Your task to perform on an android device: Open Amazon Image 0: 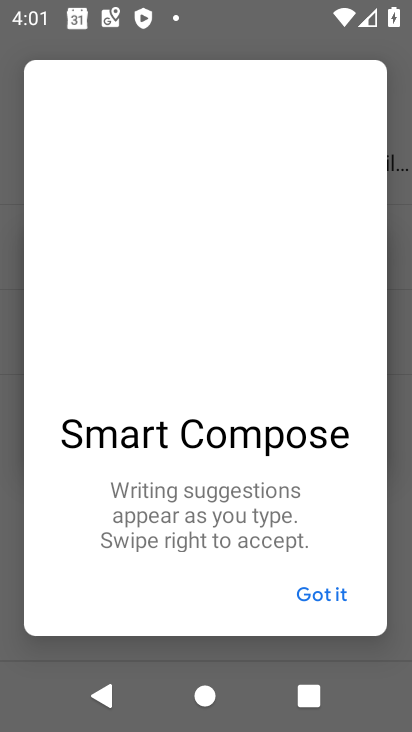
Step 0: press back button
Your task to perform on an android device: Open Amazon Image 1: 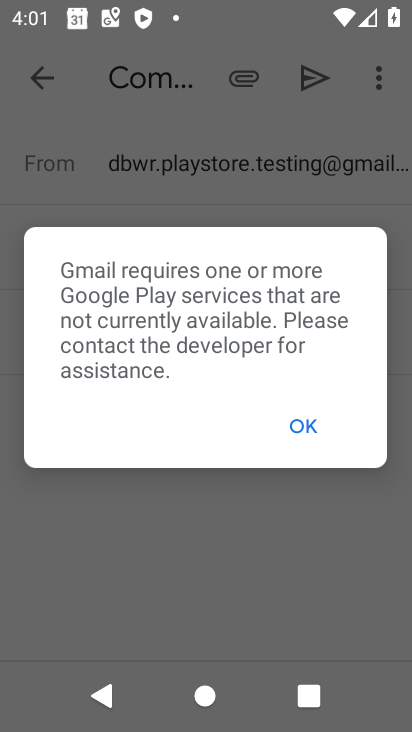
Step 1: press home button
Your task to perform on an android device: Open Amazon Image 2: 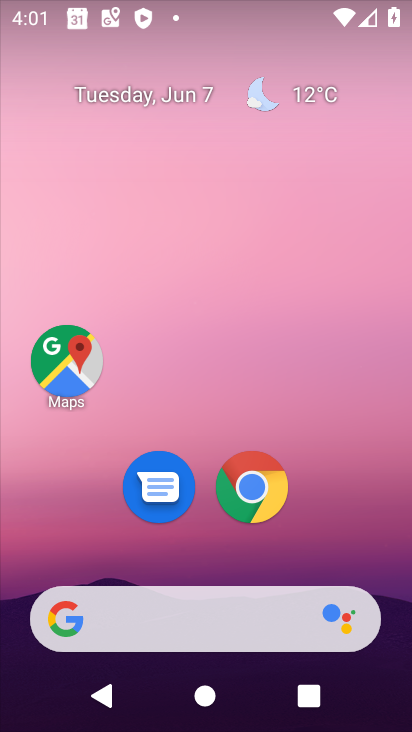
Step 2: click (245, 510)
Your task to perform on an android device: Open Amazon Image 3: 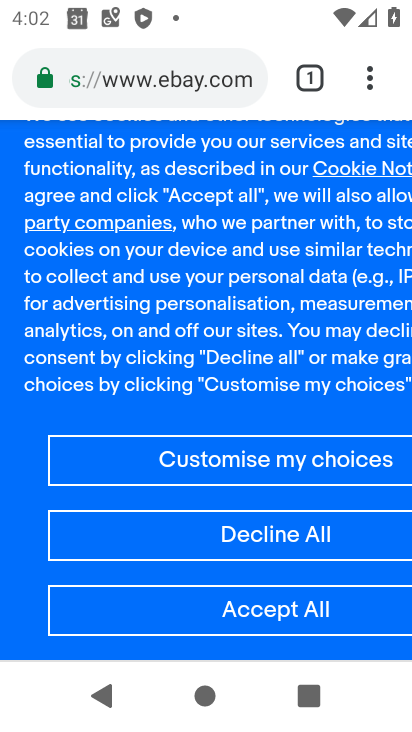
Step 3: click (295, 57)
Your task to perform on an android device: Open Amazon Image 4: 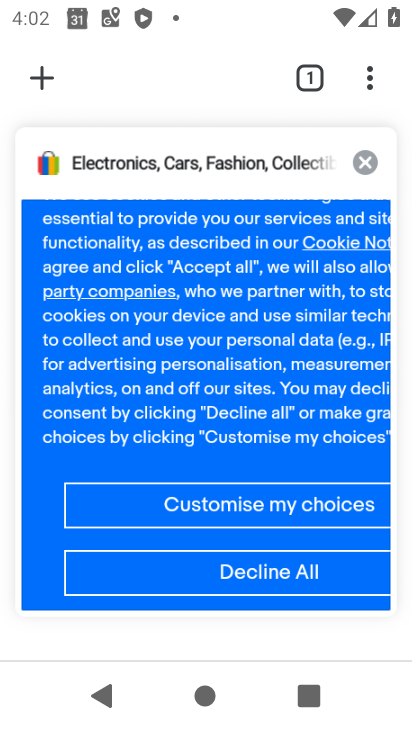
Step 4: click (56, 70)
Your task to perform on an android device: Open Amazon Image 5: 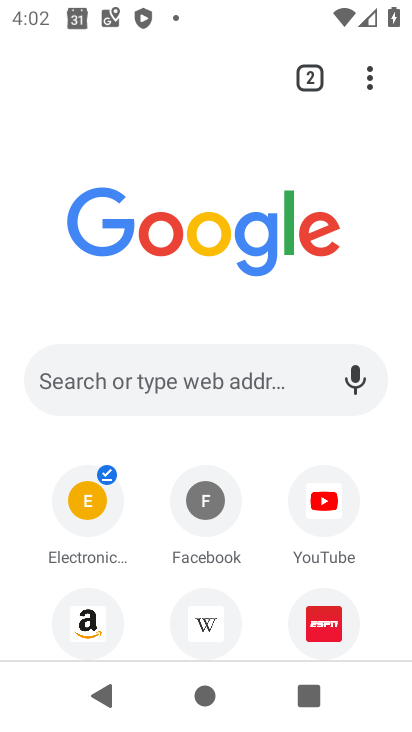
Step 5: click (85, 625)
Your task to perform on an android device: Open Amazon Image 6: 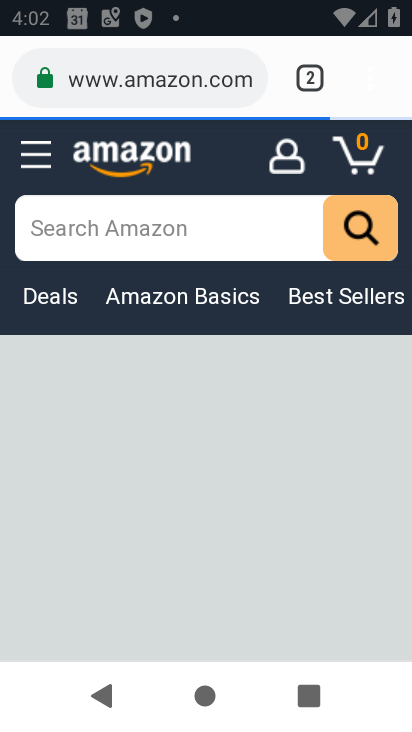
Step 6: task complete